Your task to perform on an android device: Open maps Image 0: 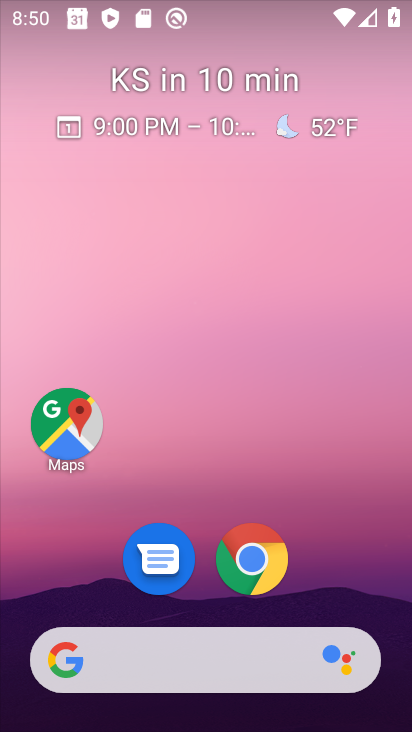
Step 0: drag from (356, 584) to (318, 25)
Your task to perform on an android device: Open maps Image 1: 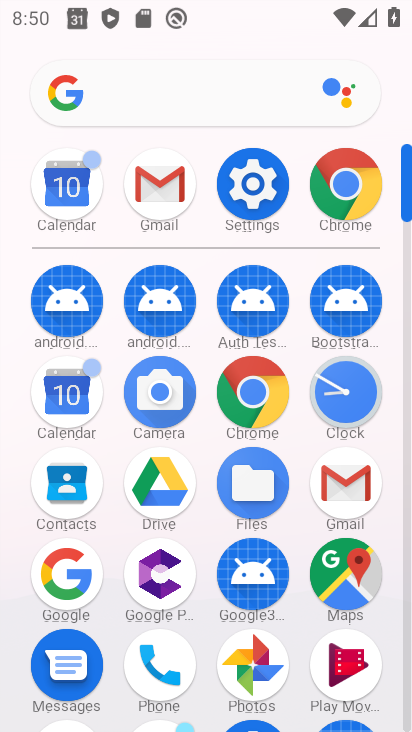
Step 1: drag from (27, 603) to (17, 218)
Your task to perform on an android device: Open maps Image 2: 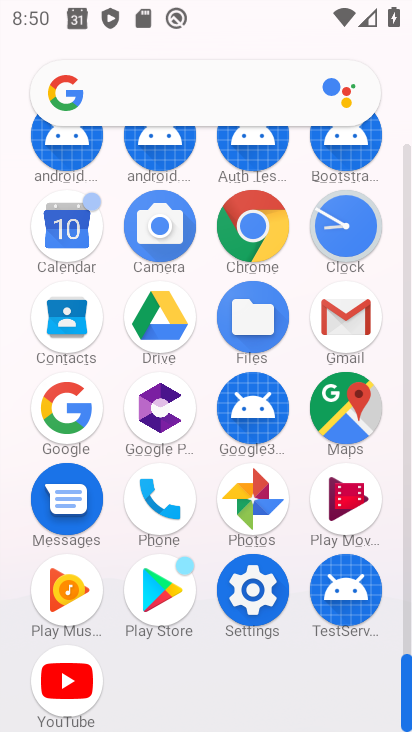
Step 2: click (341, 407)
Your task to perform on an android device: Open maps Image 3: 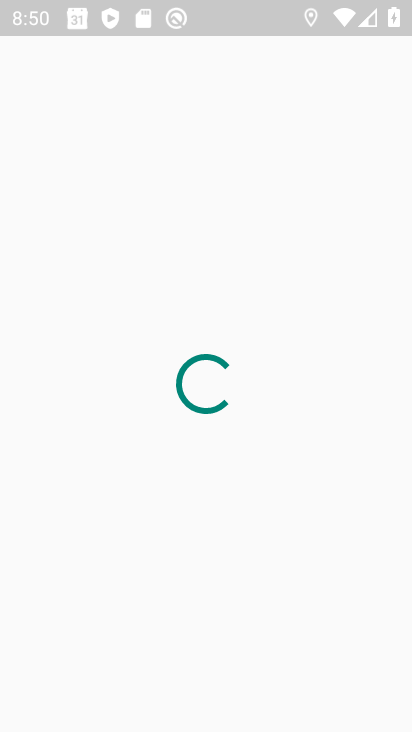
Step 3: click (263, 85)
Your task to perform on an android device: Open maps Image 4: 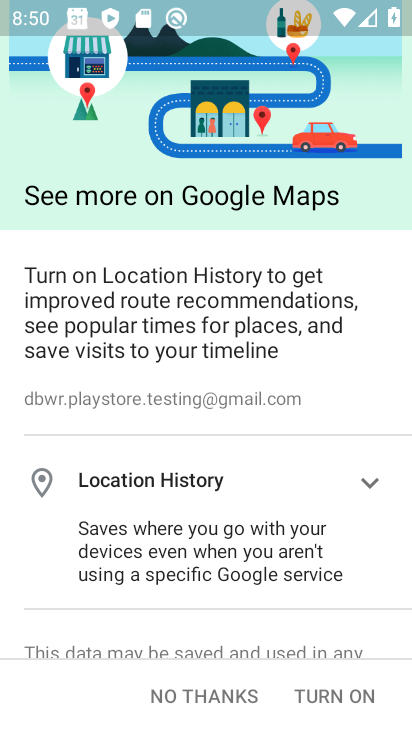
Step 4: click (326, 696)
Your task to perform on an android device: Open maps Image 5: 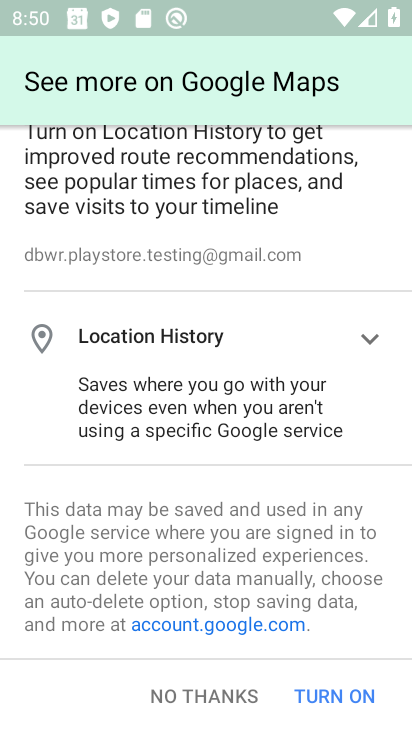
Step 5: click (325, 687)
Your task to perform on an android device: Open maps Image 6: 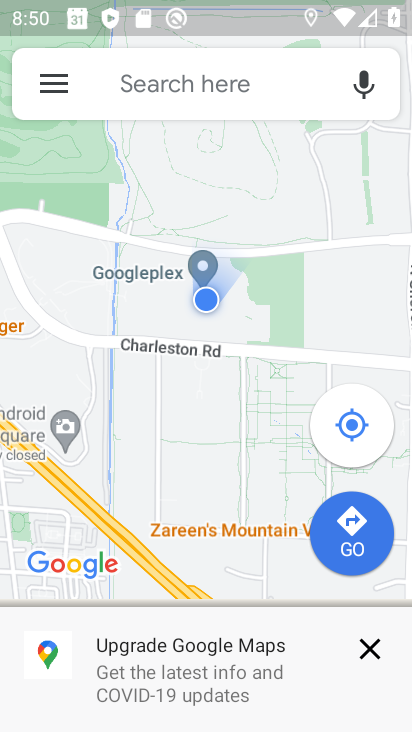
Step 6: click (272, 80)
Your task to perform on an android device: Open maps Image 7: 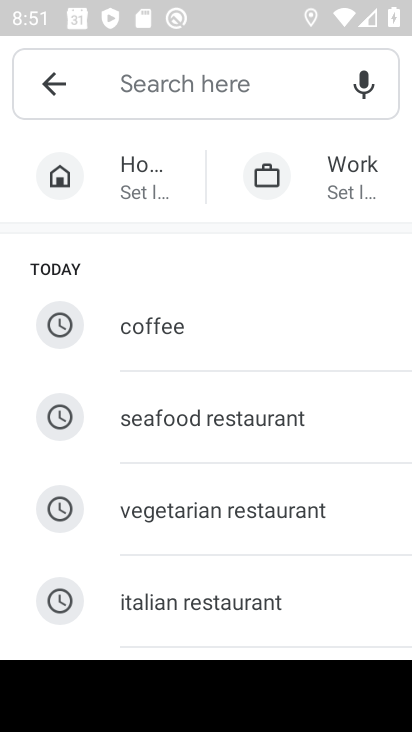
Step 7: type "Open maps"
Your task to perform on an android device: Open maps Image 8: 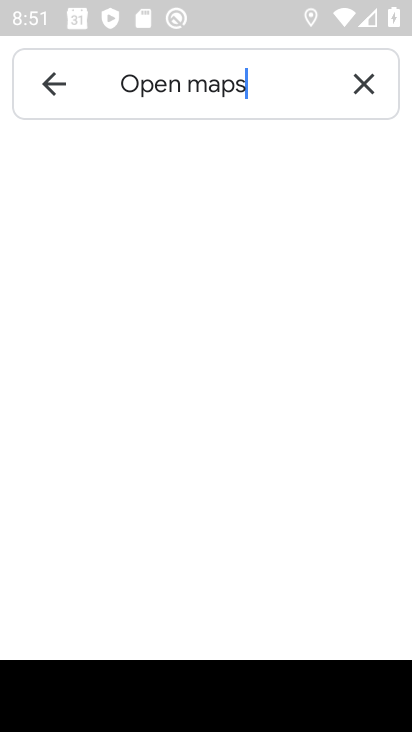
Step 8: type ""
Your task to perform on an android device: Open maps Image 9: 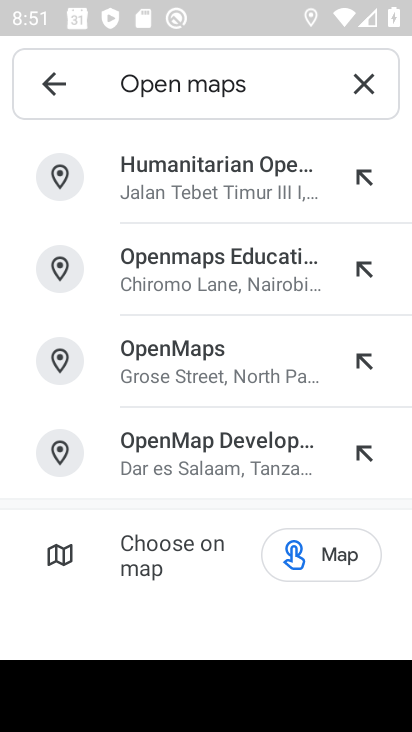
Step 9: click (46, 78)
Your task to perform on an android device: Open maps Image 10: 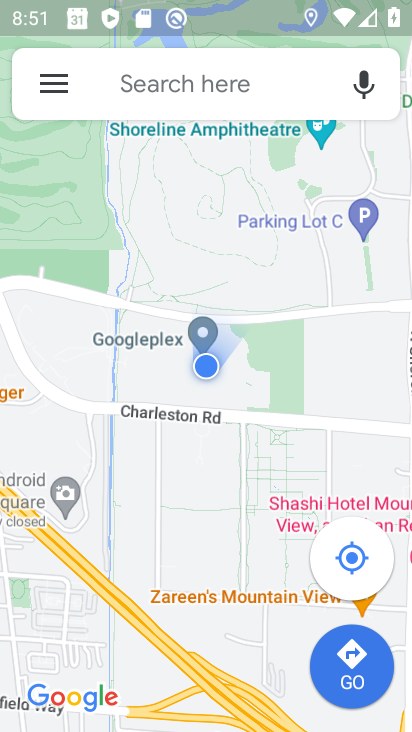
Step 10: task complete